Your task to perform on an android device: manage bookmarks in the chrome app Image 0: 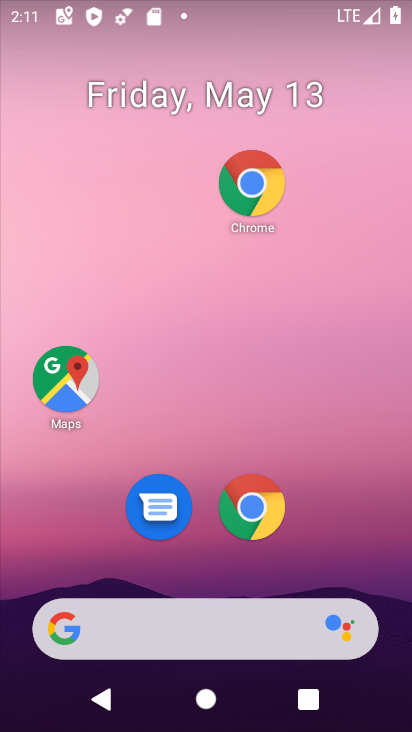
Step 0: drag from (359, 575) to (119, 21)
Your task to perform on an android device: manage bookmarks in the chrome app Image 1: 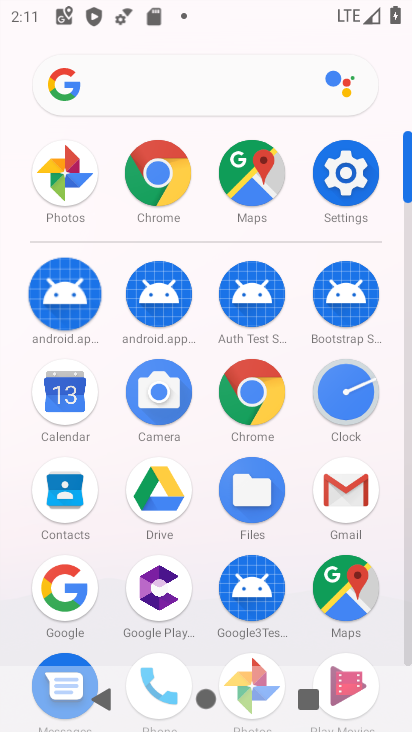
Step 1: click (157, 184)
Your task to perform on an android device: manage bookmarks in the chrome app Image 2: 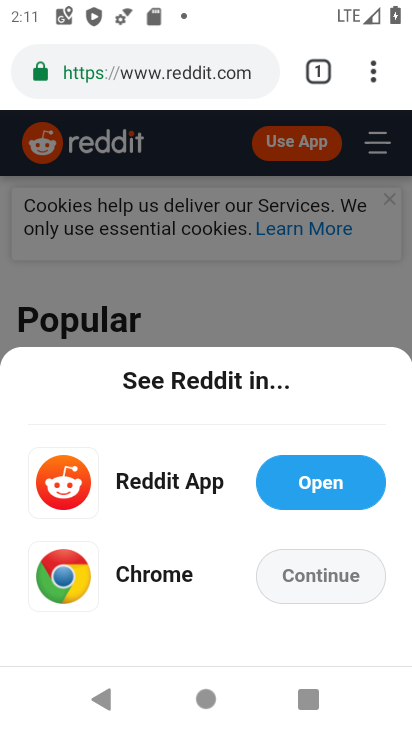
Step 2: drag from (368, 76) to (114, 278)
Your task to perform on an android device: manage bookmarks in the chrome app Image 3: 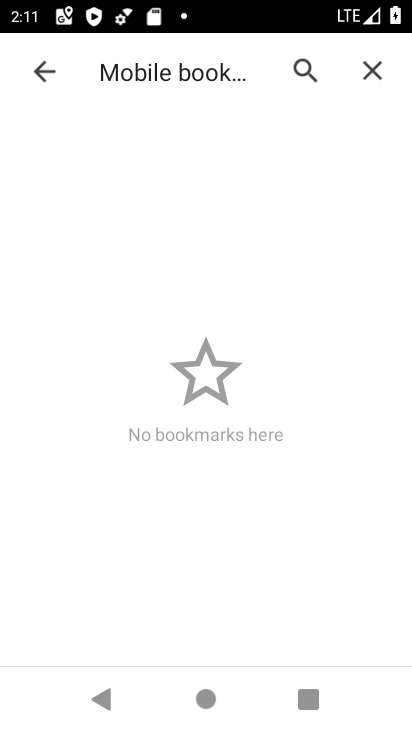
Step 3: click (113, 277)
Your task to perform on an android device: manage bookmarks in the chrome app Image 4: 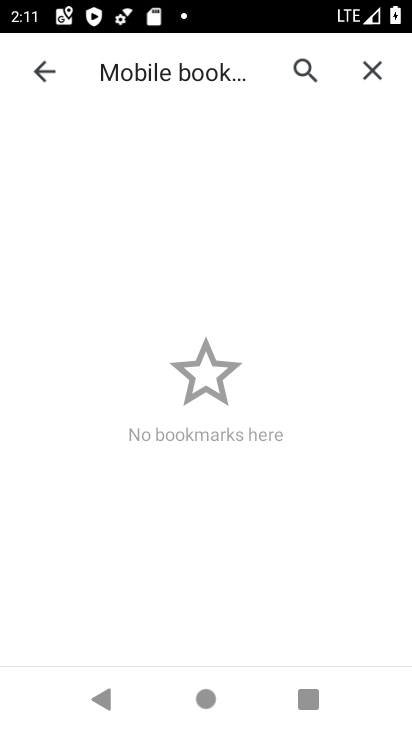
Step 4: task complete